Your task to perform on an android device: Go to eBay Image 0: 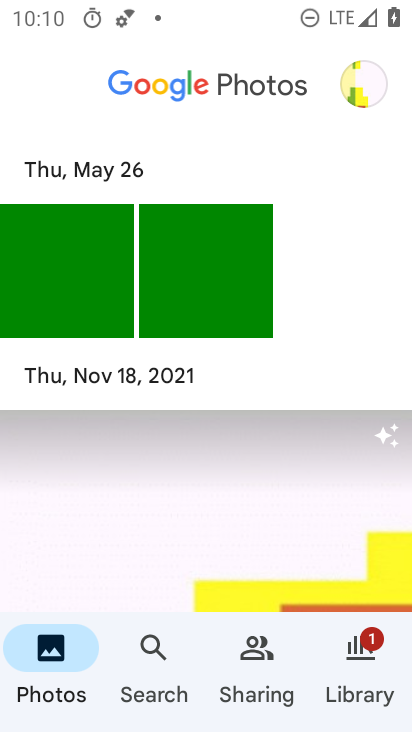
Step 0: press home button
Your task to perform on an android device: Go to eBay Image 1: 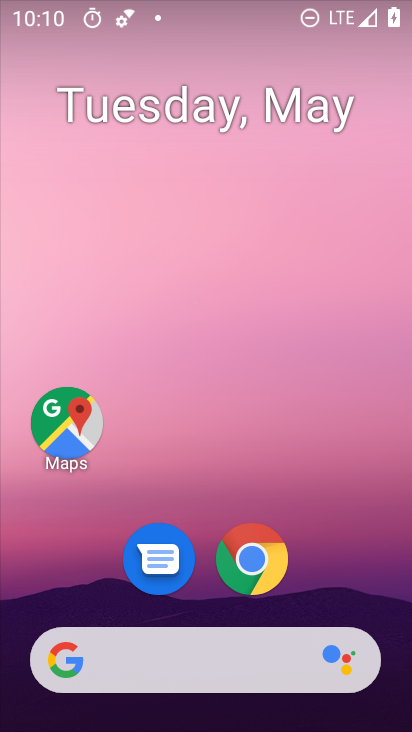
Step 1: drag from (394, 624) to (161, 156)
Your task to perform on an android device: Go to eBay Image 2: 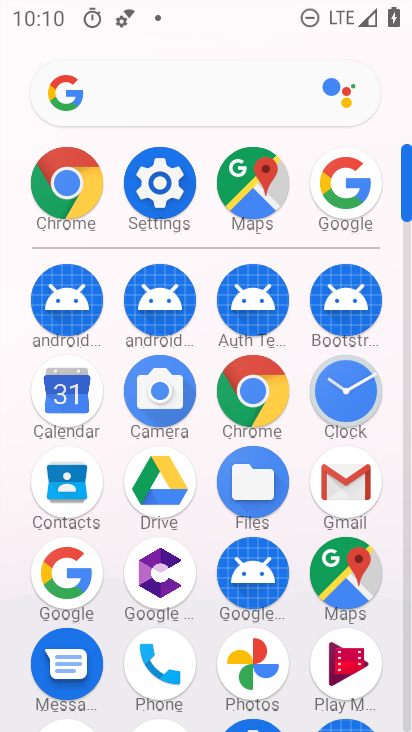
Step 2: click (62, 574)
Your task to perform on an android device: Go to eBay Image 3: 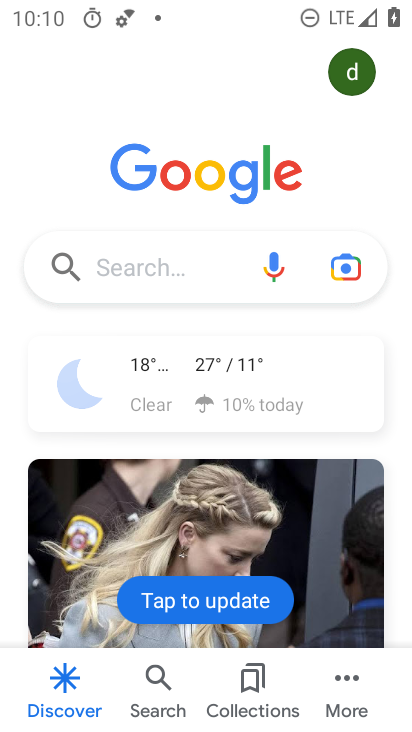
Step 3: click (168, 253)
Your task to perform on an android device: Go to eBay Image 4: 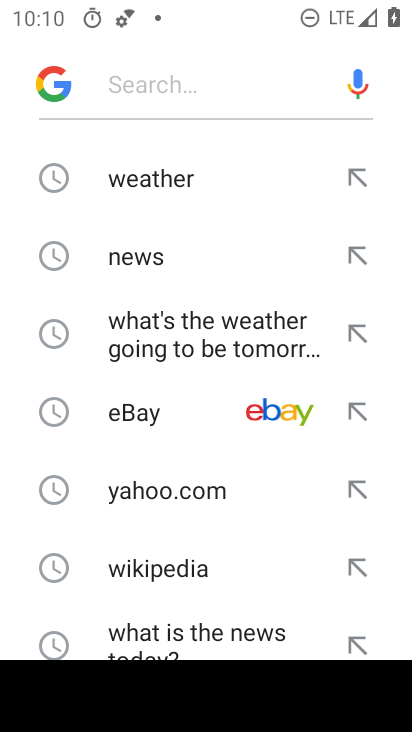
Step 4: click (173, 422)
Your task to perform on an android device: Go to eBay Image 5: 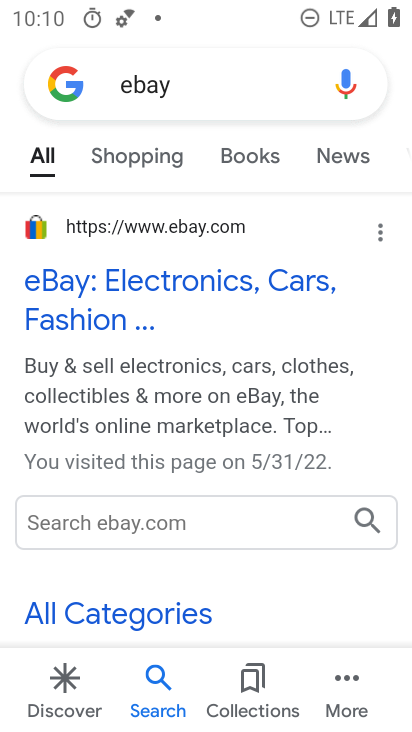
Step 5: task complete